Your task to perform on an android device: change notification settings in the gmail app Image 0: 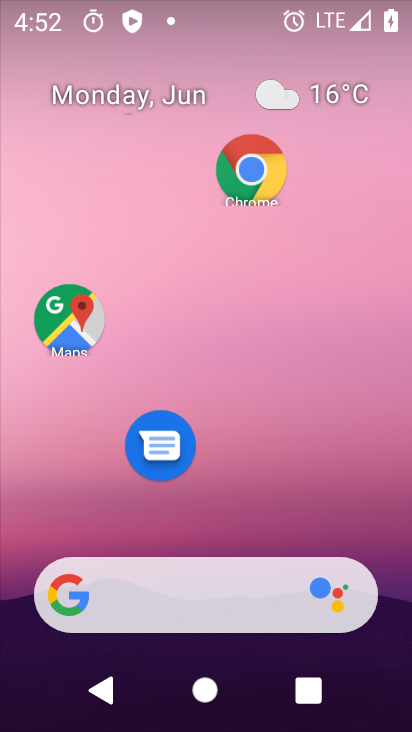
Step 0: drag from (227, 525) to (227, 210)
Your task to perform on an android device: change notification settings in the gmail app Image 1: 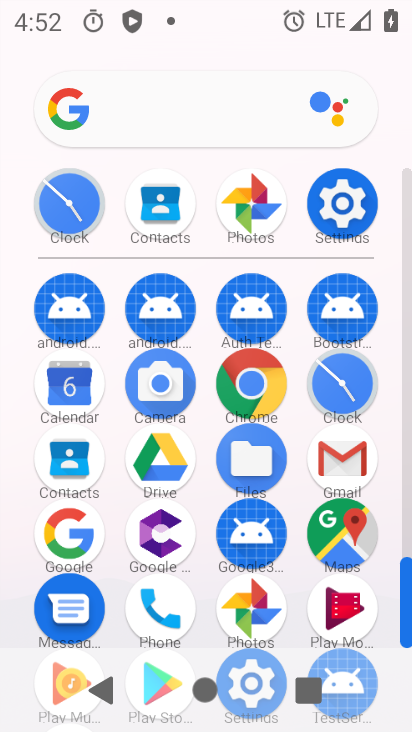
Step 1: click (340, 463)
Your task to perform on an android device: change notification settings in the gmail app Image 2: 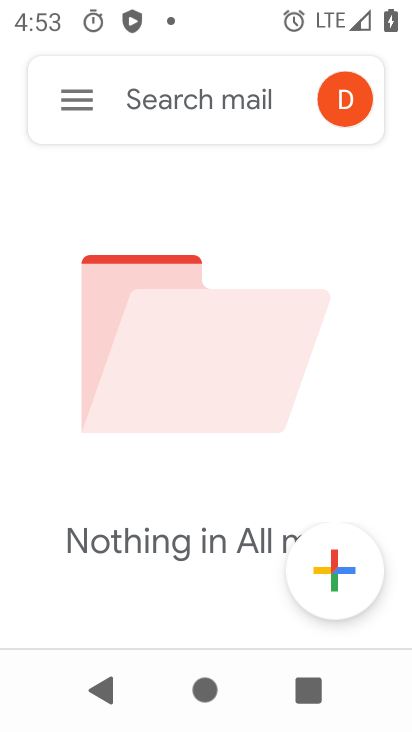
Step 2: click (68, 116)
Your task to perform on an android device: change notification settings in the gmail app Image 3: 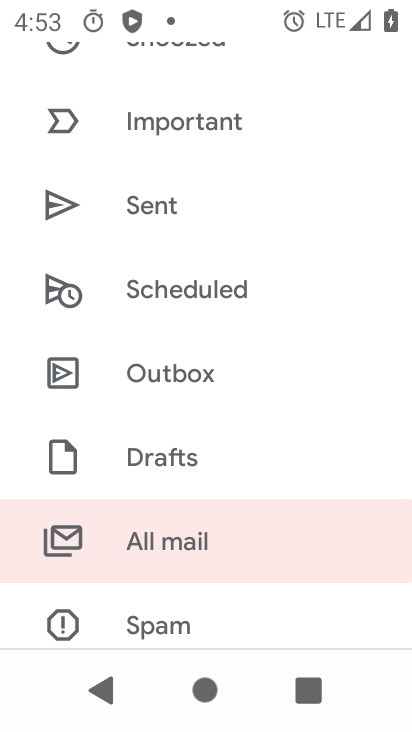
Step 3: drag from (227, 513) to (233, 130)
Your task to perform on an android device: change notification settings in the gmail app Image 4: 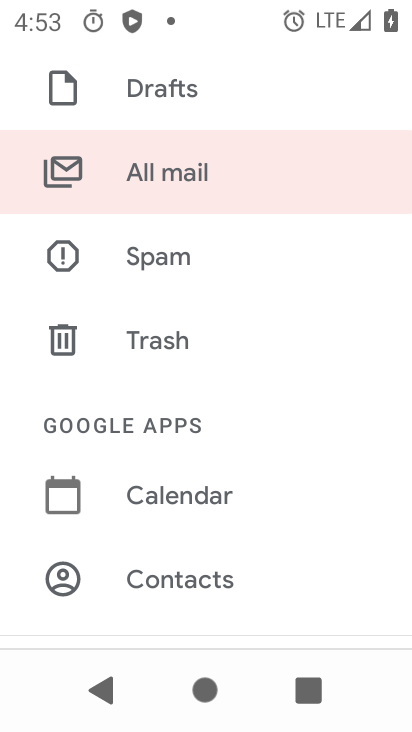
Step 4: drag from (251, 516) to (258, 165)
Your task to perform on an android device: change notification settings in the gmail app Image 5: 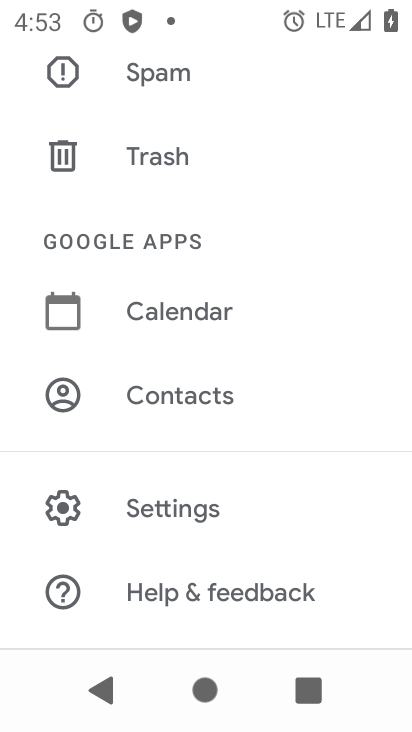
Step 5: click (200, 521)
Your task to perform on an android device: change notification settings in the gmail app Image 6: 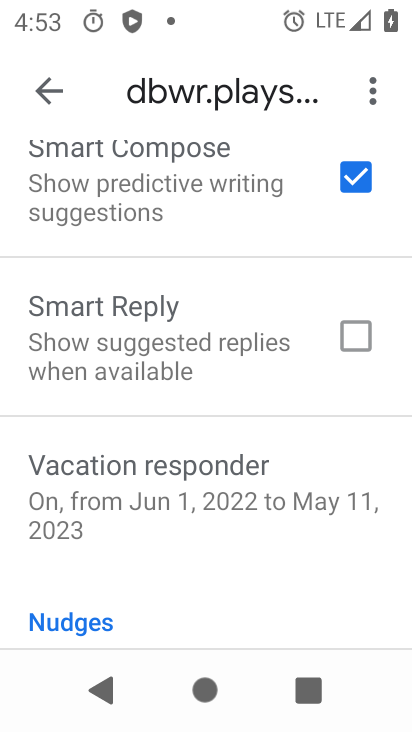
Step 6: drag from (201, 257) to (150, 637)
Your task to perform on an android device: change notification settings in the gmail app Image 7: 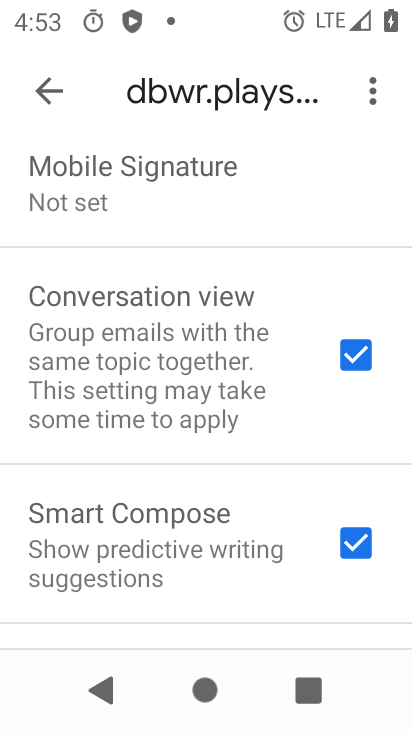
Step 7: drag from (137, 390) to (116, 635)
Your task to perform on an android device: change notification settings in the gmail app Image 8: 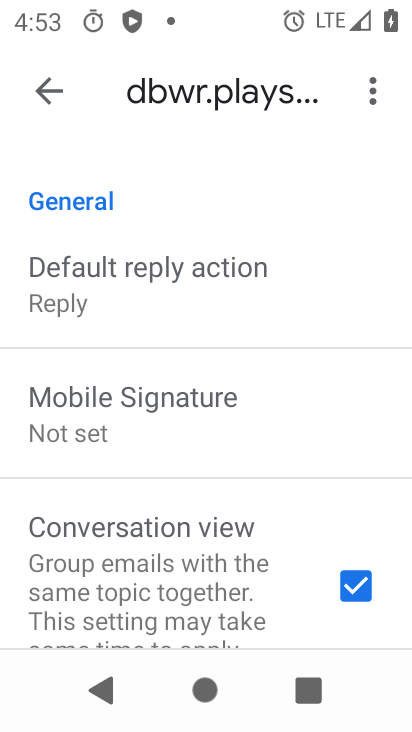
Step 8: drag from (140, 384) to (99, 647)
Your task to perform on an android device: change notification settings in the gmail app Image 9: 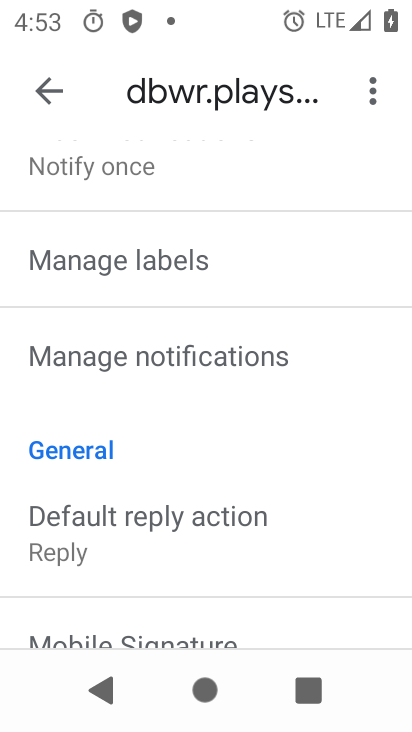
Step 9: drag from (128, 420) to (110, 592)
Your task to perform on an android device: change notification settings in the gmail app Image 10: 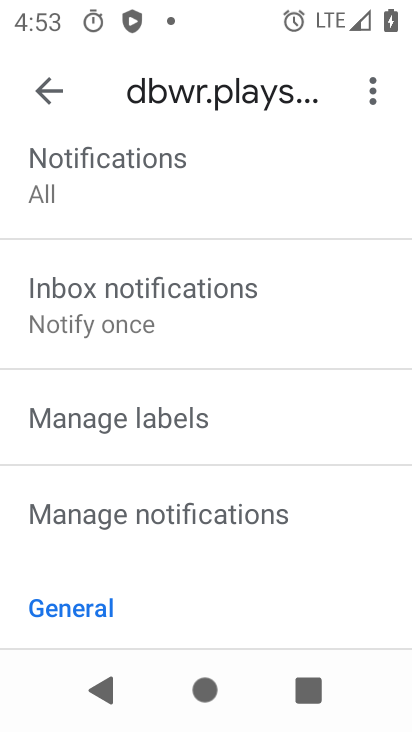
Step 10: drag from (145, 376) to (140, 565)
Your task to perform on an android device: change notification settings in the gmail app Image 11: 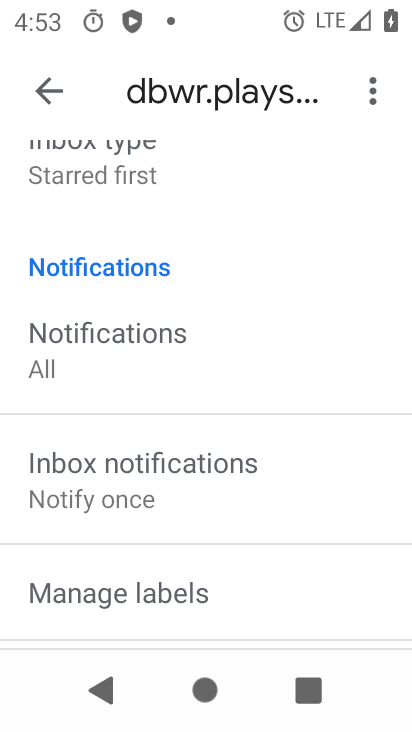
Step 11: drag from (150, 612) to (159, 479)
Your task to perform on an android device: change notification settings in the gmail app Image 12: 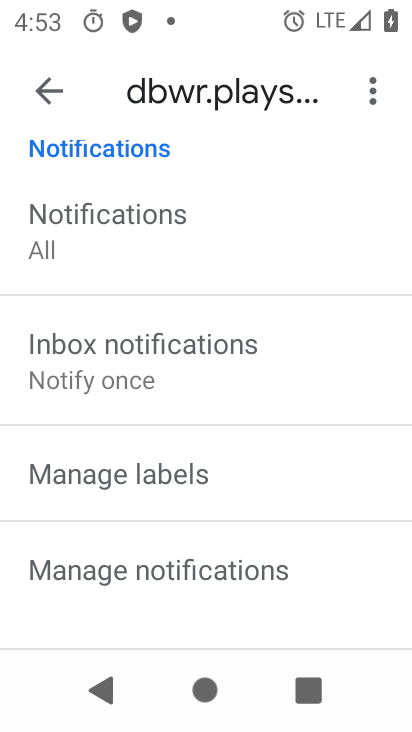
Step 12: click (159, 584)
Your task to perform on an android device: change notification settings in the gmail app Image 13: 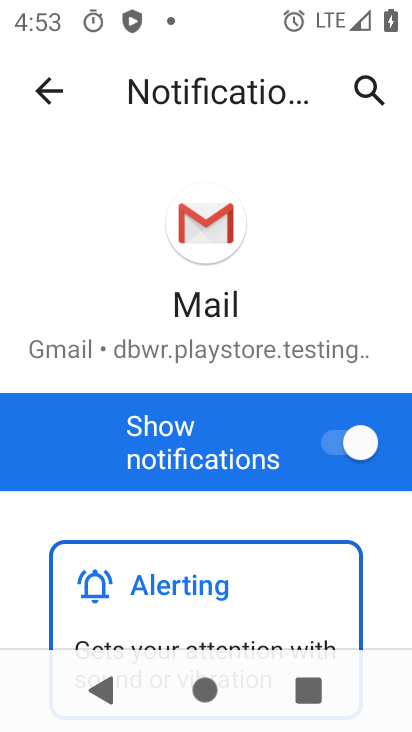
Step 13: click (339, 447)
Your task to perform on an android device: change notification settings in the gmail app Image 14: 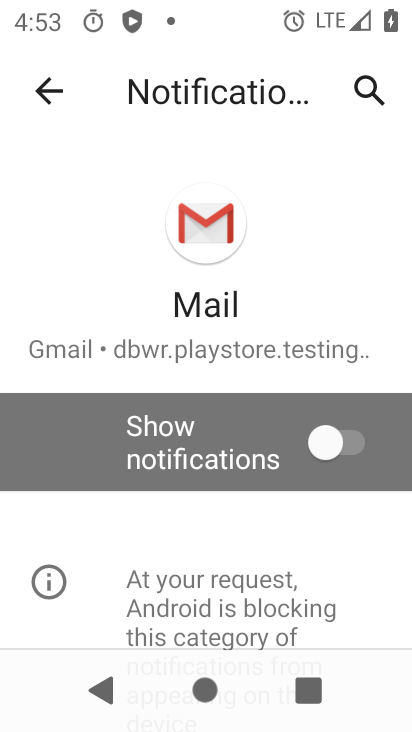
Step 14: task complete